Your task to perform on an android device: change timer sound Image 0: 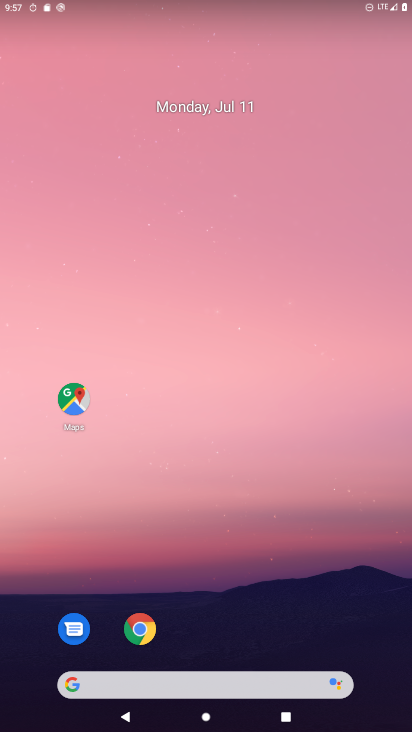
Step 0: drag from (192, 657) to (190, 64)
Your task to perform on an android device: change timer sound Image 1: 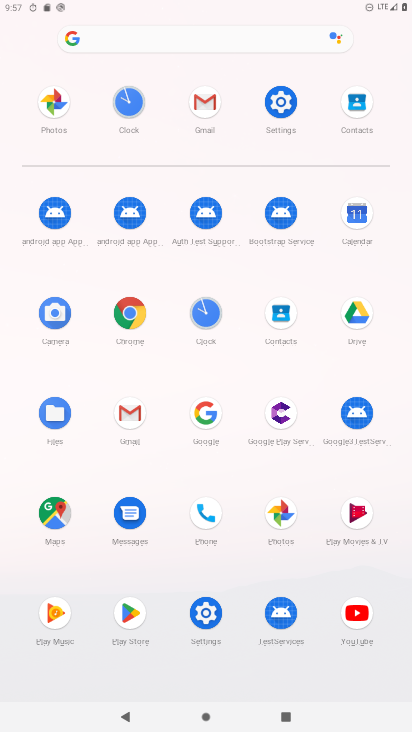
Step 1: click (116, 90)
Your task to perform on an android device: change timer sound Image 2: 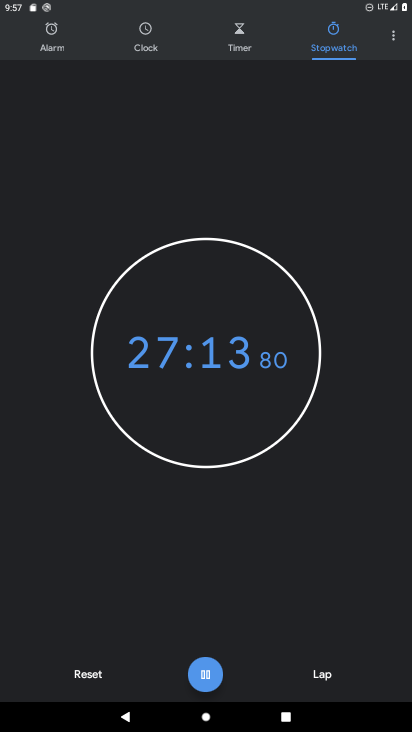
Step 2: click (397, 40)
Your task to perform on an android device: change timer sound Image 3: 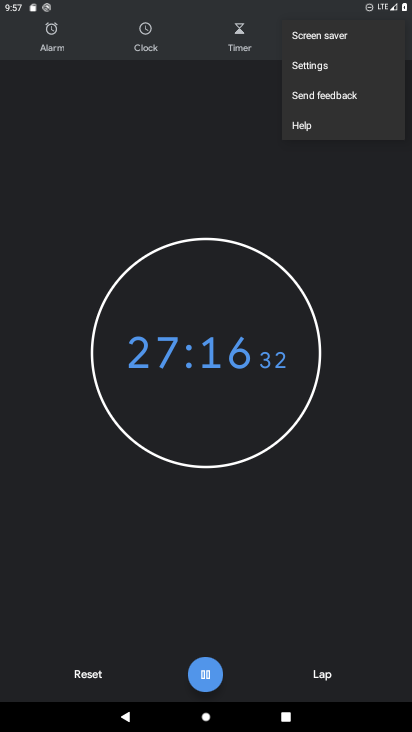
Step 3: click (334, 77)
Your task to perform on an android device: change timer sound Image 4: 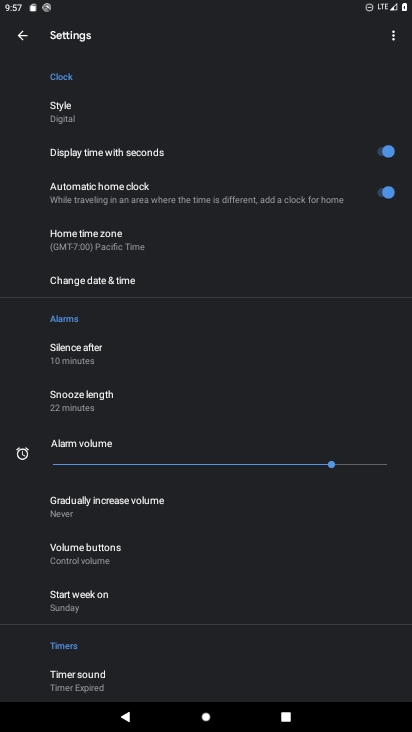
Step 4: click (124, 671)
Your task to perform on an android device: change timer sound Image 5: 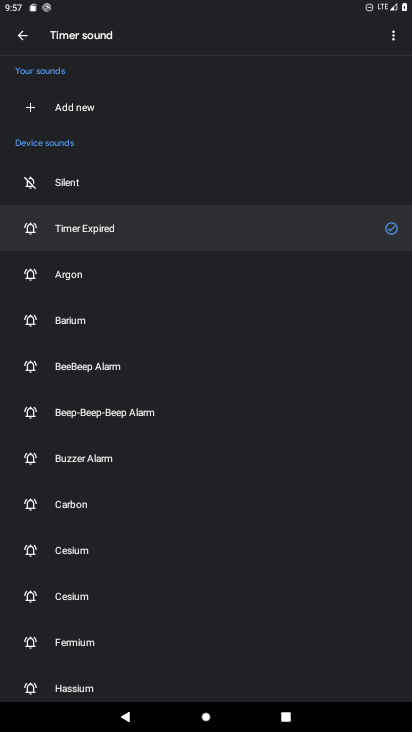
Step 5: click (213, 419)
Your task to perform on an android device: change timer sound Image 6: 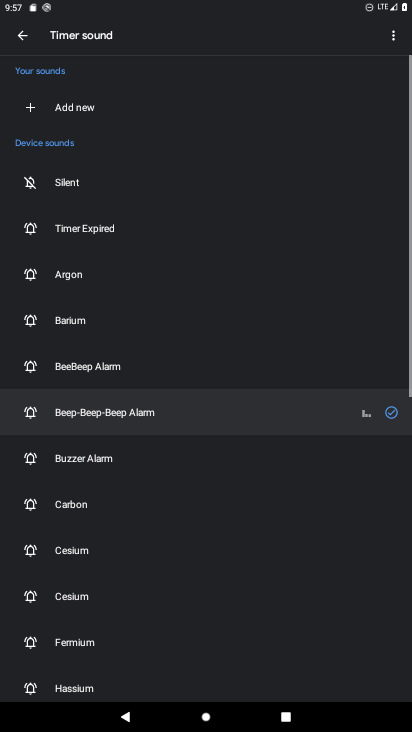
Step 6: task complete